Your task to perform on an android device: Go to Wikipedia Image 0: 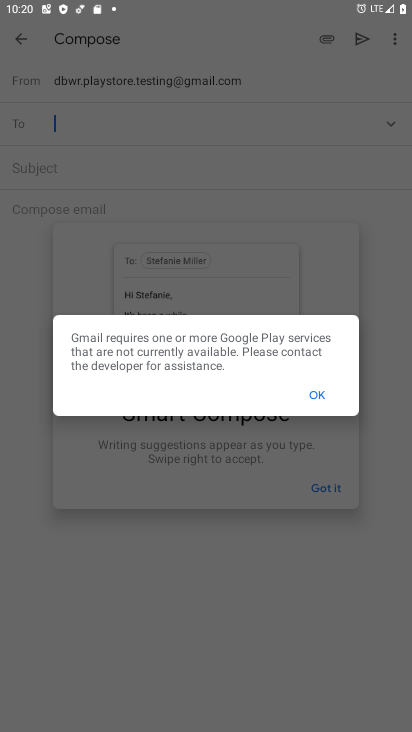
Step 0: press home button
Your task to perform on an android device: Go to Wikipedia Image 1: 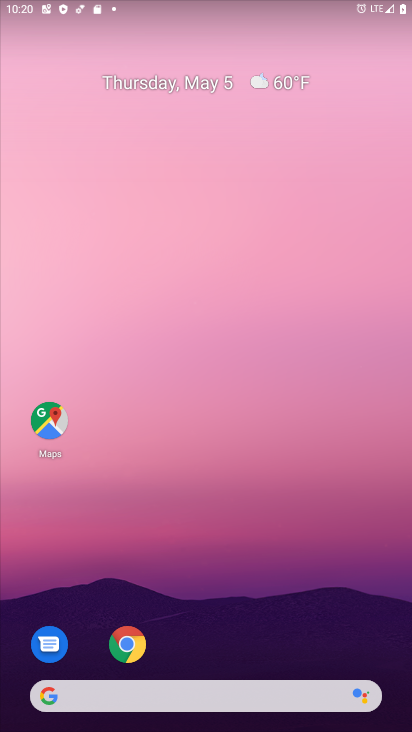
Step 1: click (135, 636)
Your task to perform on an android device: Go to Wikipedia Image 2: 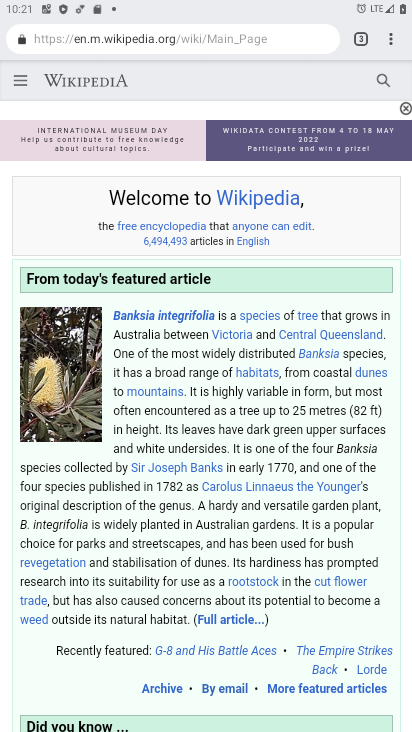
Step 2: click (112, 45)
Your task to perform on an android device: Go to Wikipedia Image 3: 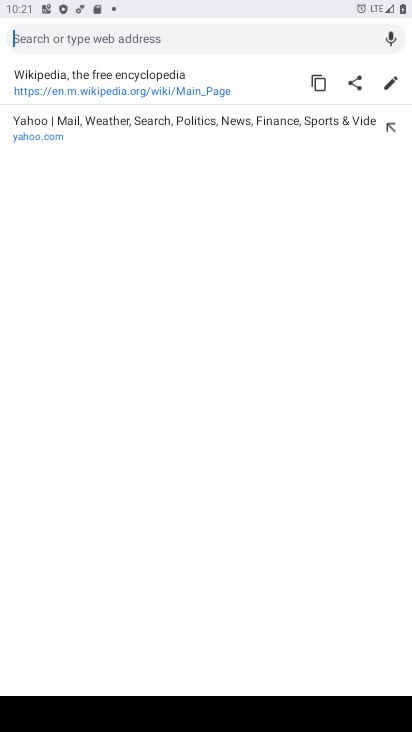
Step 3: click (138, 98)
Your task to perform on an android device: Go to Wikipedia Image 4: 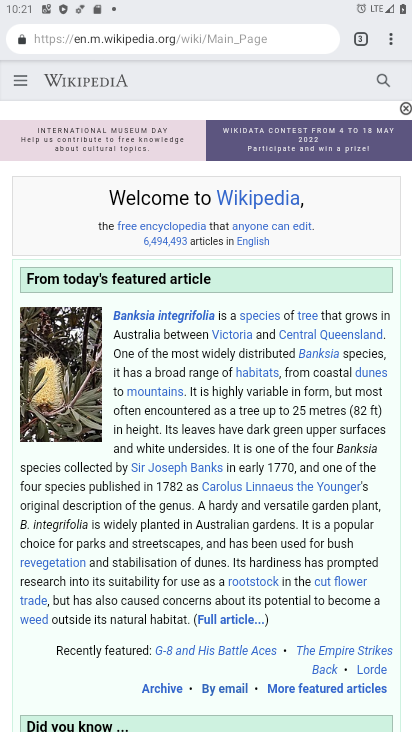
Step 4: task complete